Your task to perform on an android device: add a contact in the contacts app Image 0: 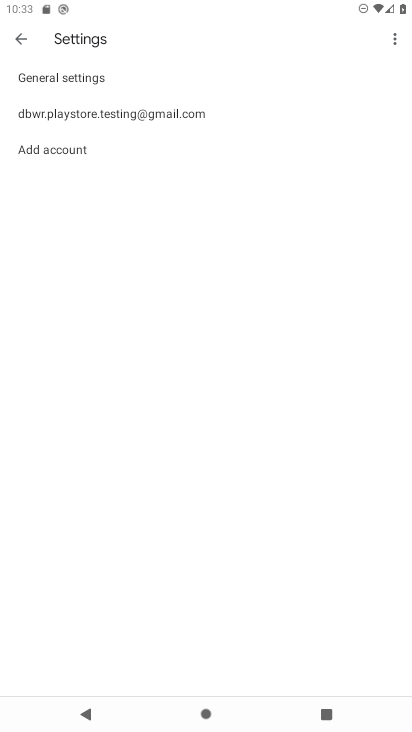
Step 0: press home button
Your task to perform on an android device: add a contact in the contacts app Image 1: 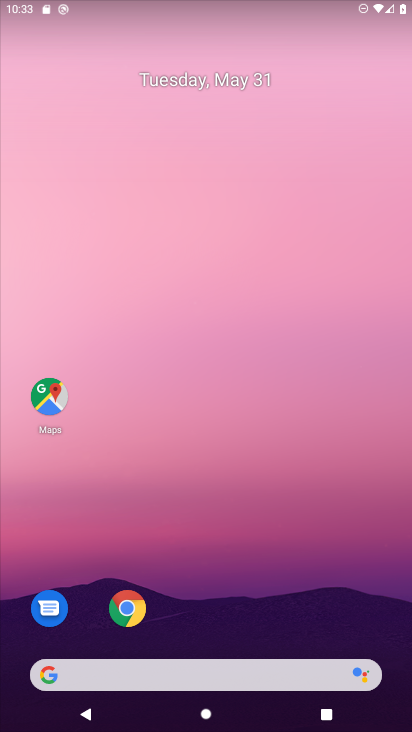
Step 1: drag from (352, 533) to (352, 146)
Your task to perform on an android device: add a contact in the contacts app Image 2: 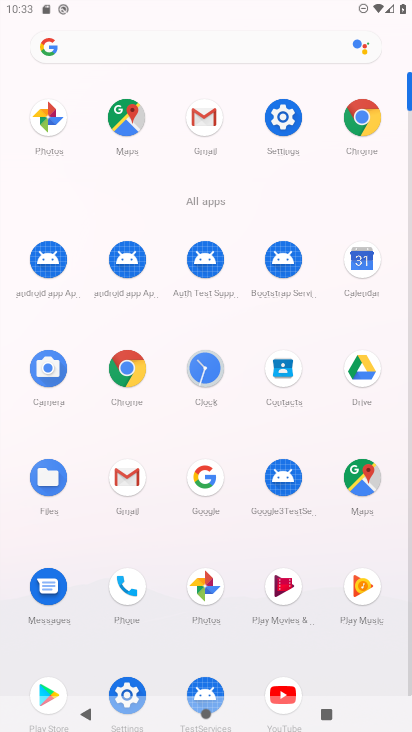
Step 2: click (289, 366)
Your task to perform on an android device: add a contact in the contacts app Image 3: 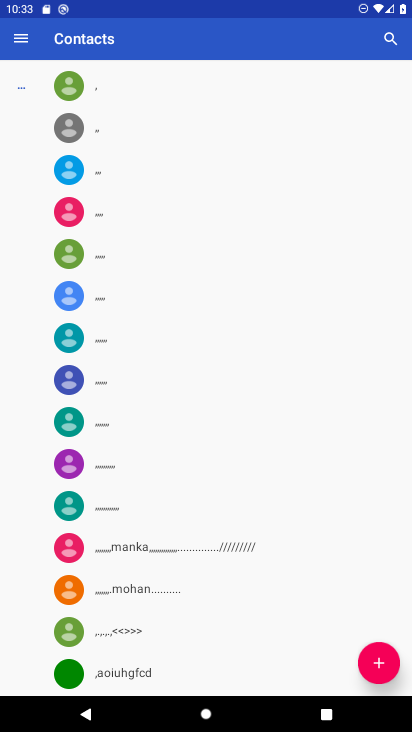
Step 3: click (381, 667)
Your task to perform on an android device: add a contact in the contacts app Image 4: 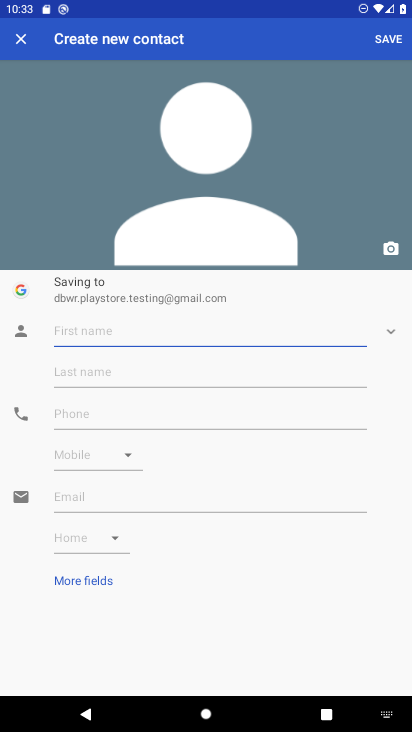
Step 4: type "bisnoi"
Your task to perform on an android device: add a contact in the contacts app Image 5: 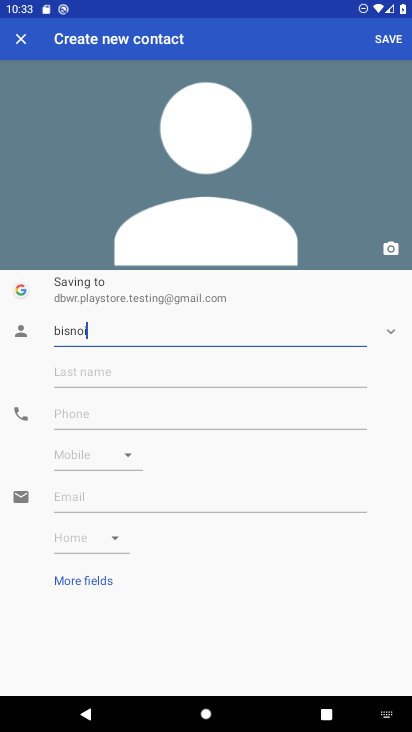
Step 5: click (209, 403)
Your task to perform on an android device: add a contact in the contacts app Image 6: 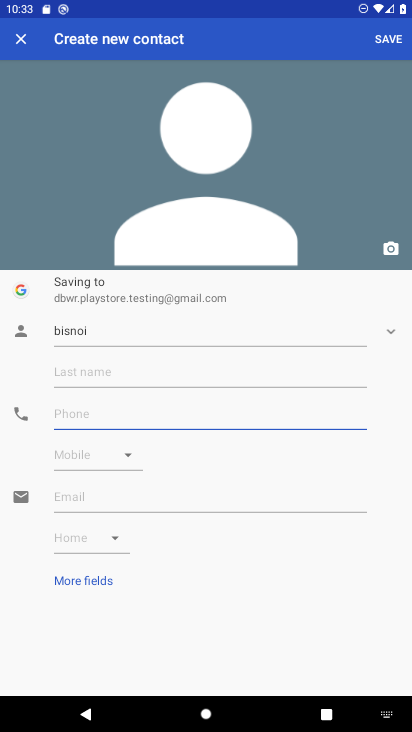
Step 6: type "878587448"
Your task to perform on an android device: add a contact in the contacts app Image 7: 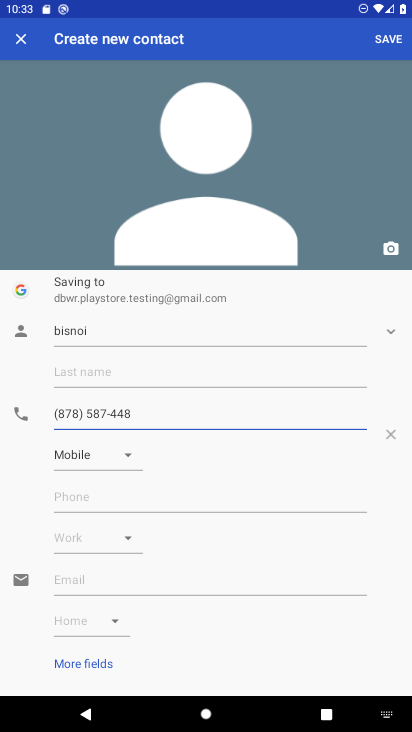
Step 7: click (397, 39)
Your task to perform on an android device: add a contact in the contacts app Image 8: 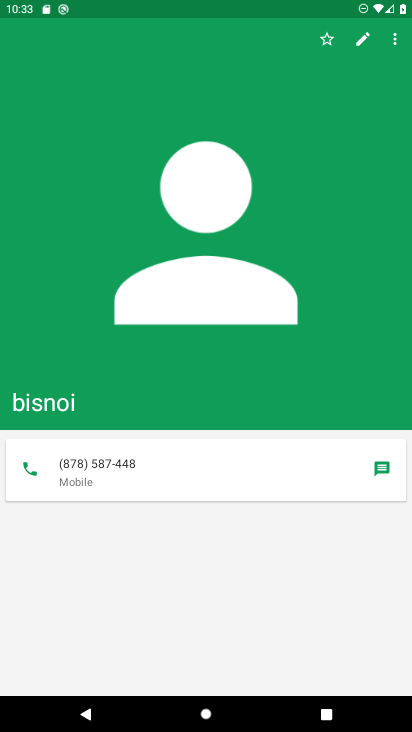
Step 8: task complete